Your task to perform on an android device: What does the iPhone 8 look like? Image 0: 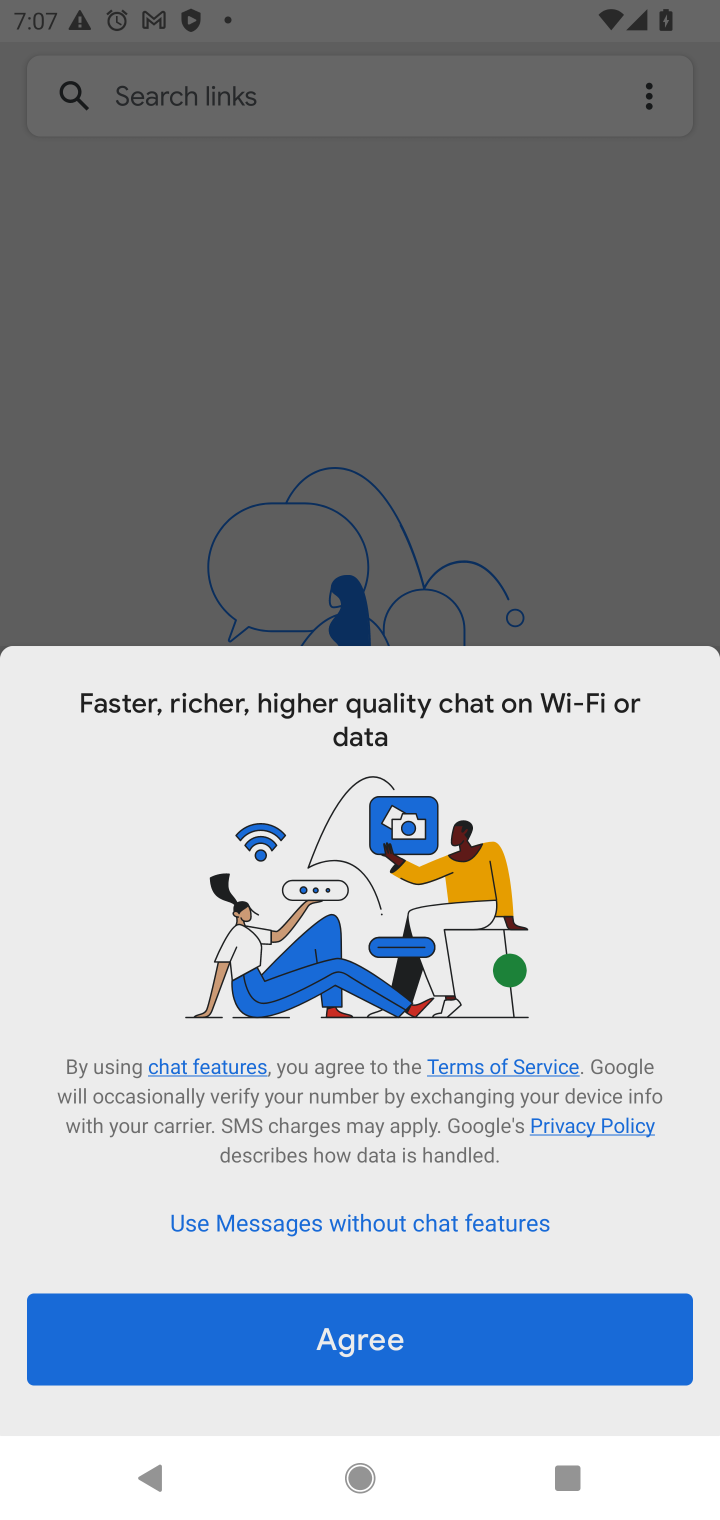
Step 0: press home button
Your task to perform on an android device: What does the iPhone 8 look like? Image 1: 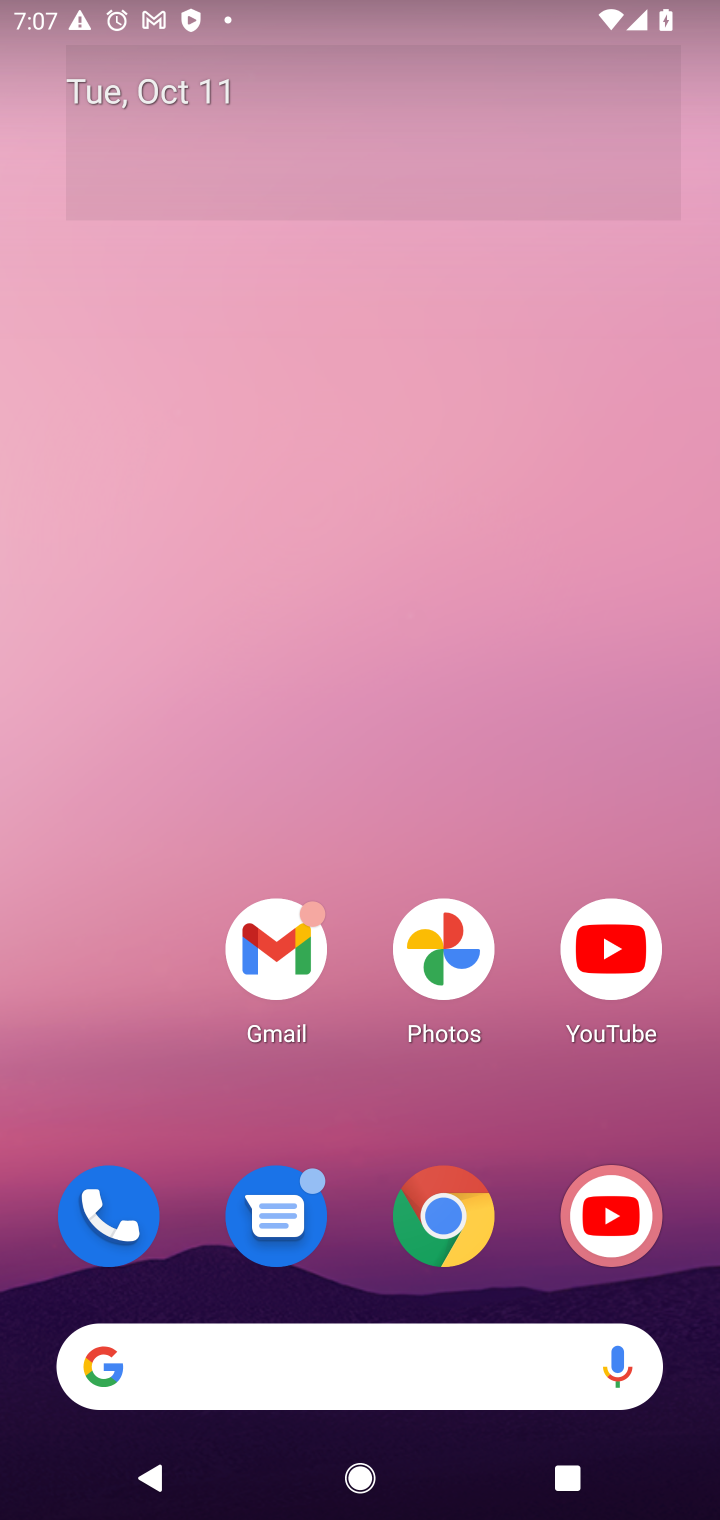
Step 1: click (432, 1260)
Your task to perform on an android device: What does the iPhone 8 look like? Image 2: 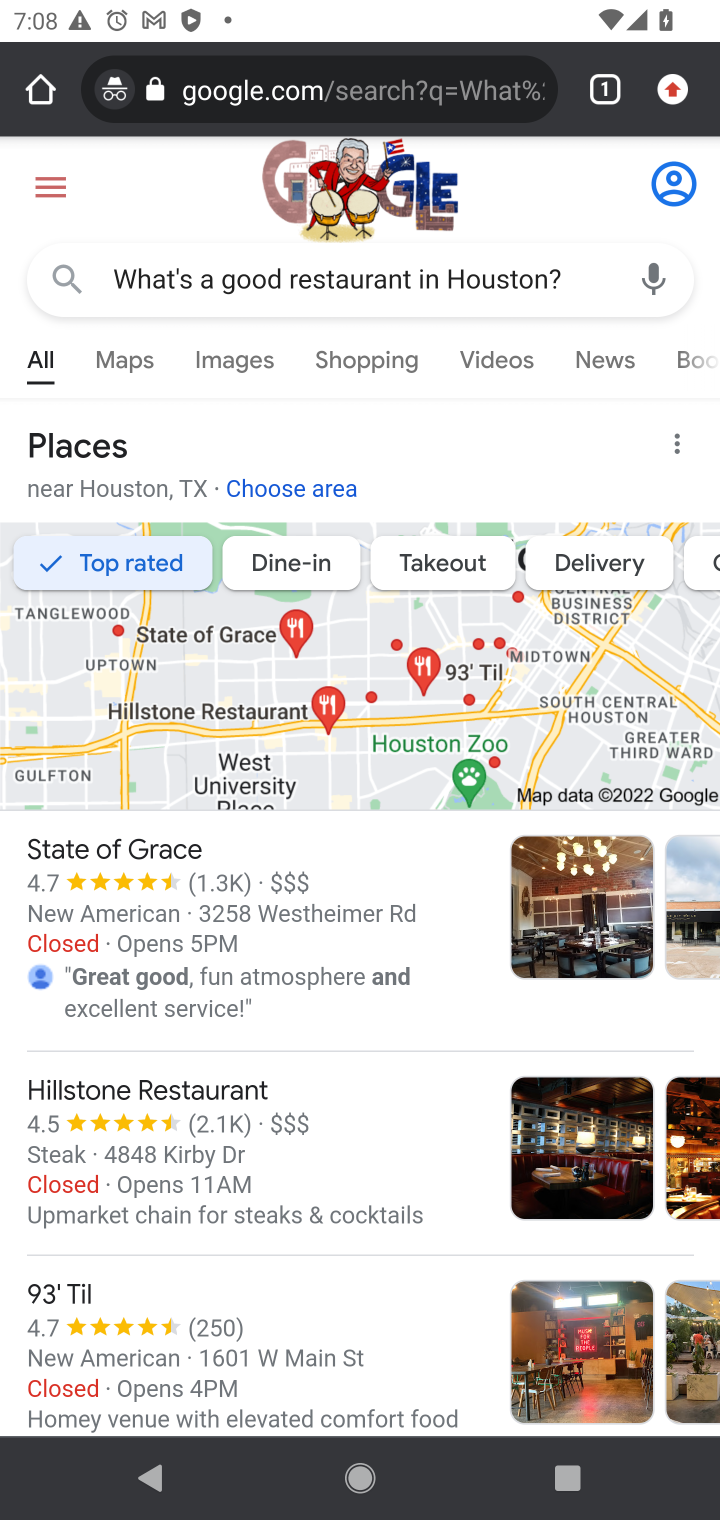
Step 2: click (560, 294)
Your task to perform on an android device: What does the iPhone 8 look like? Image 3: 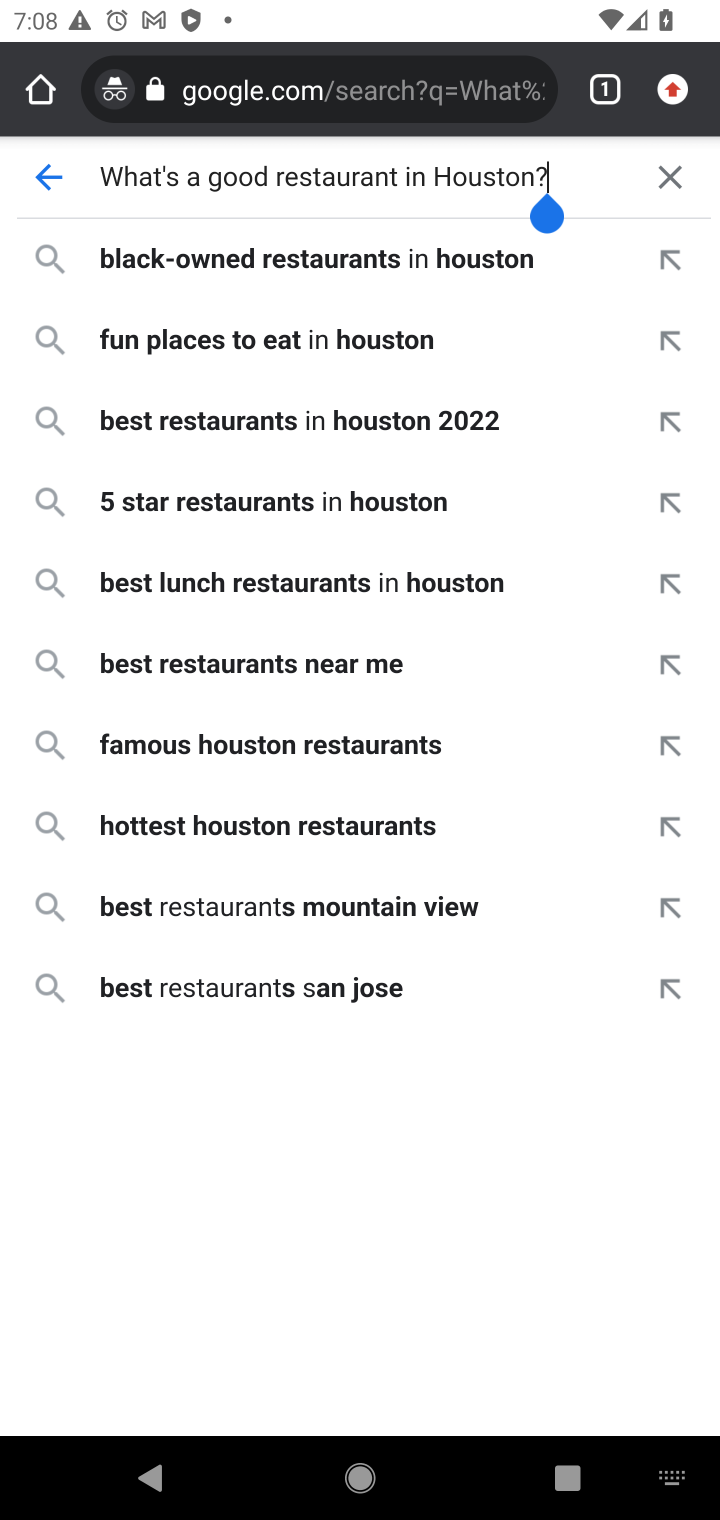
Step 3: click (665, 173)
Your task to perform on an android device: What does the iPhone 8 look like? Image 4: 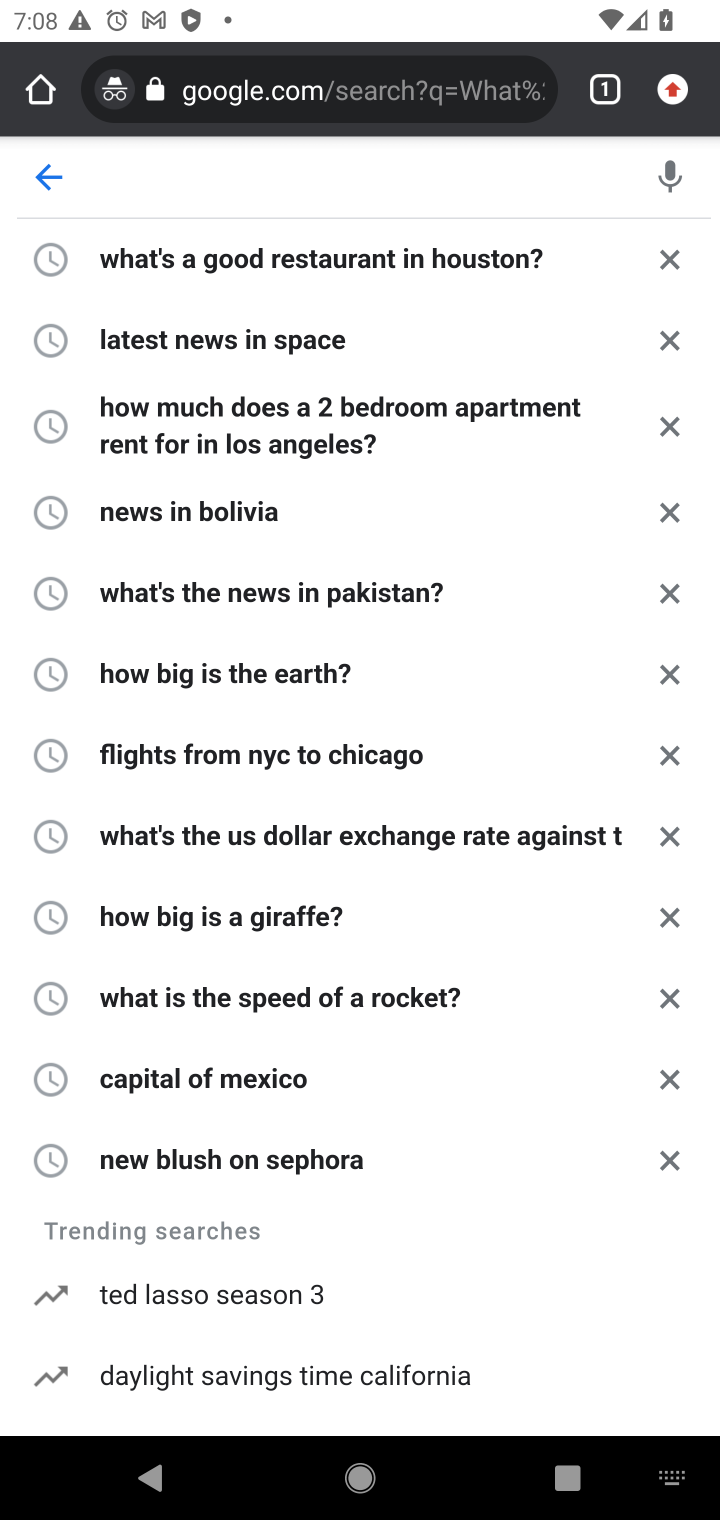
Step 4: type "What does the iPhone 8 look like?"
Your task to perform on an android device: What does the iPhone 8 look like? Image 5: 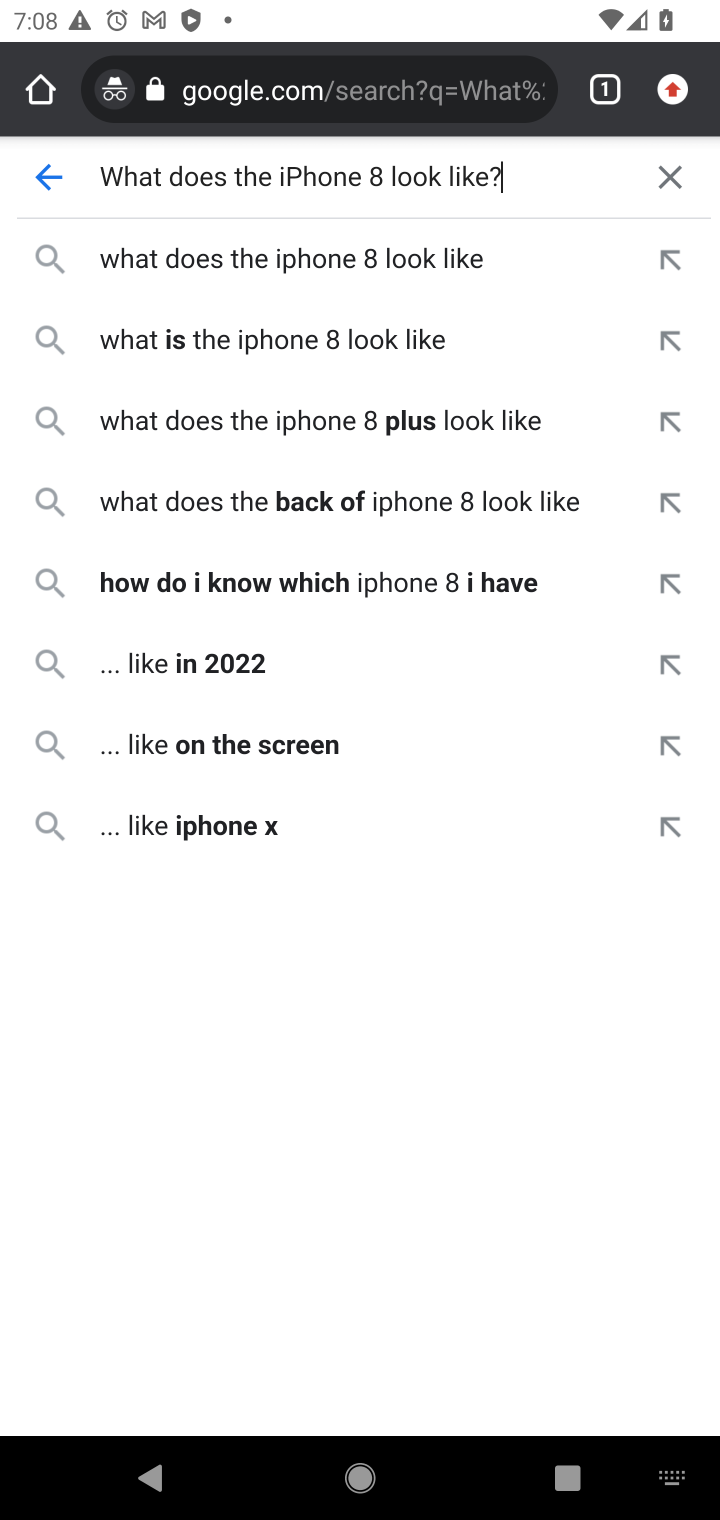
Step 5: press enter
Your task to perform on an android device: What does the iPhone 8 look like? Image 6: 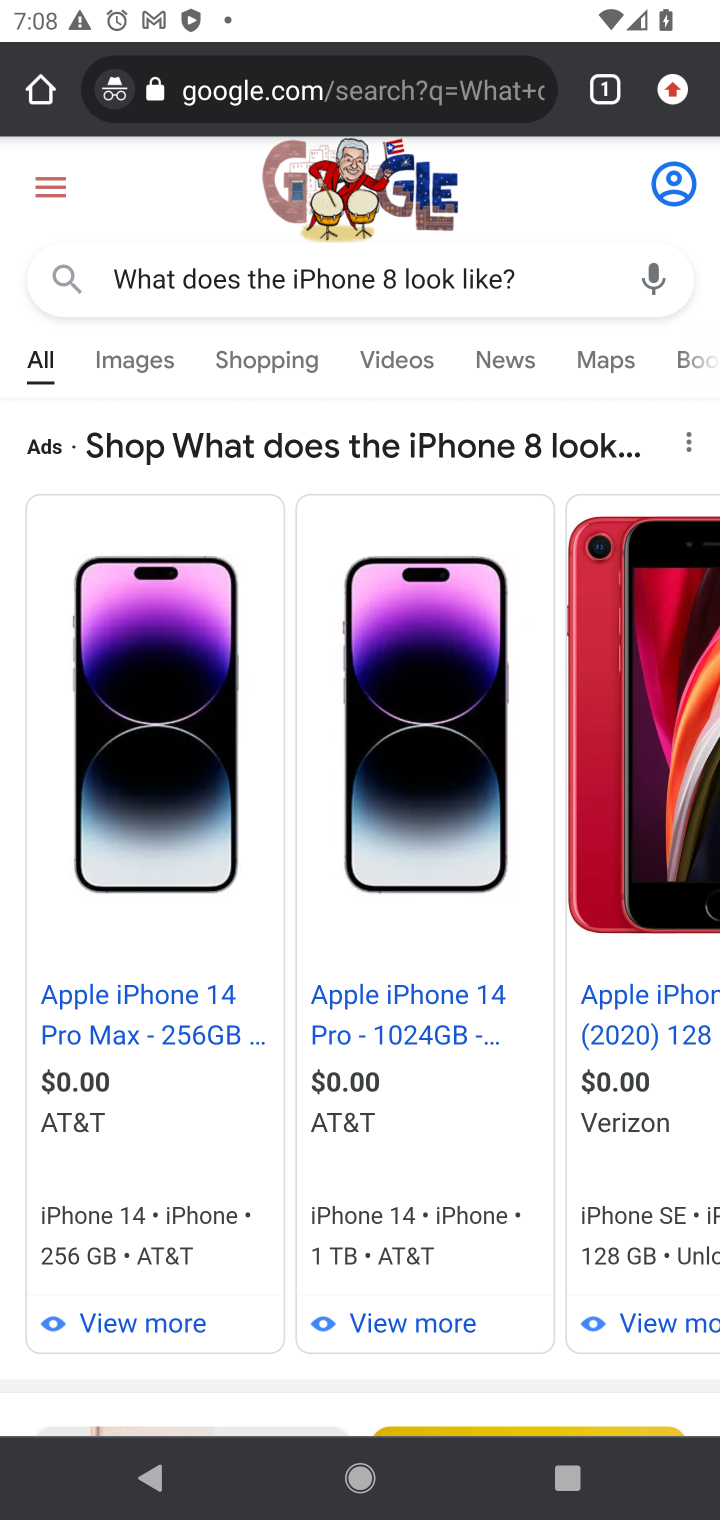
Step 6: task complete